Your task to perform on an android device: open a bookmark in the chrome app Image 0: 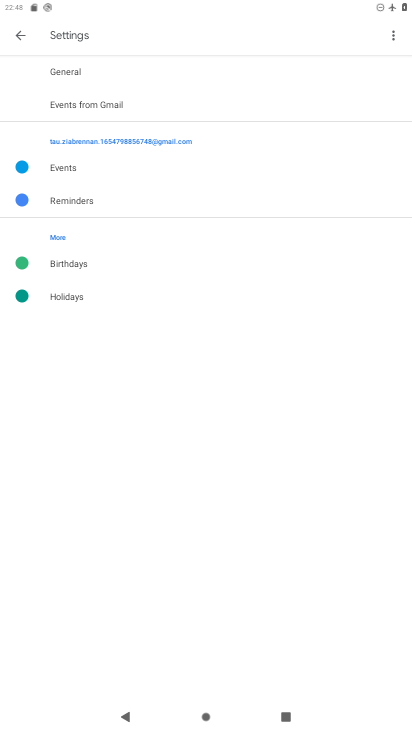
Step 0: press home button
Your task to perform on an android device: open a bookmark in the chrome app Image 1: 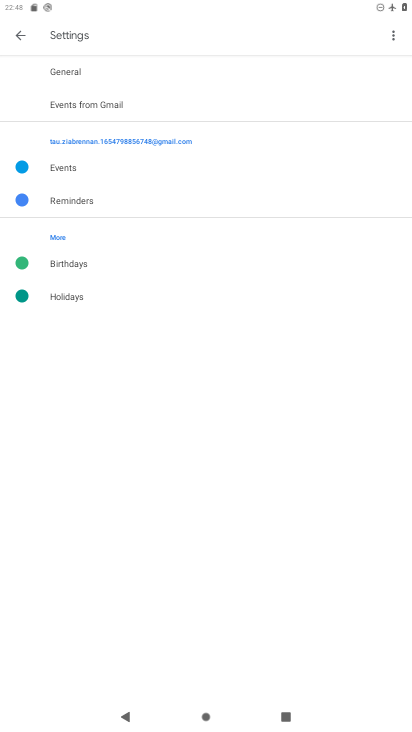
Step 1: press home button
Your task to perform on an android device: open a bookmark in the chrome app Image 2: 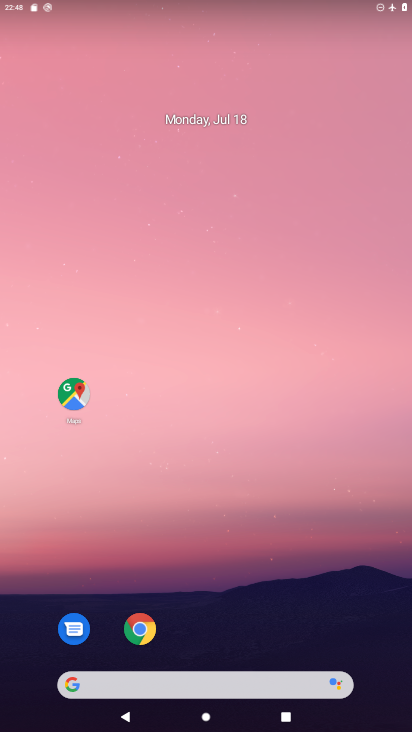
Step 2: drag from (281, 622) to (238, 78)
Your task to perform on an android device: open a bookmark in the chrome app Image 3: 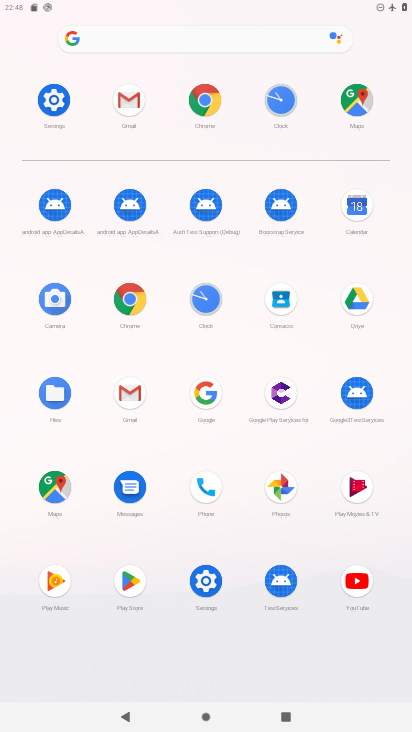
Step 3: click (205, 95)
Your task to perform on an android device: open a bookmark in the chrome app Image 4: 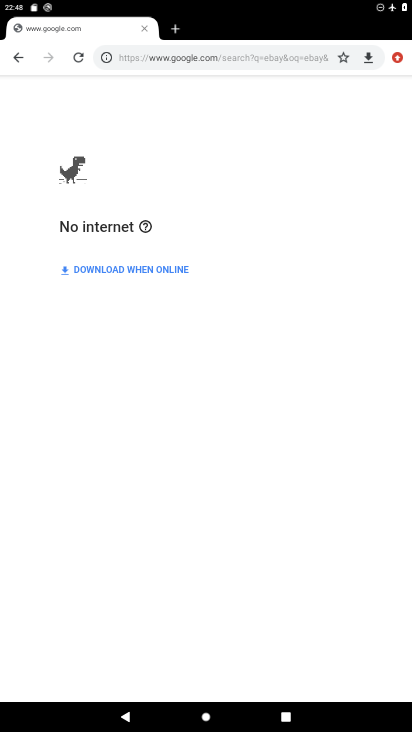
Step 4: drag from (405, 49) to (285, 154)
Your task to perform on an android device: open a bookmark in the chrome app Image 5: 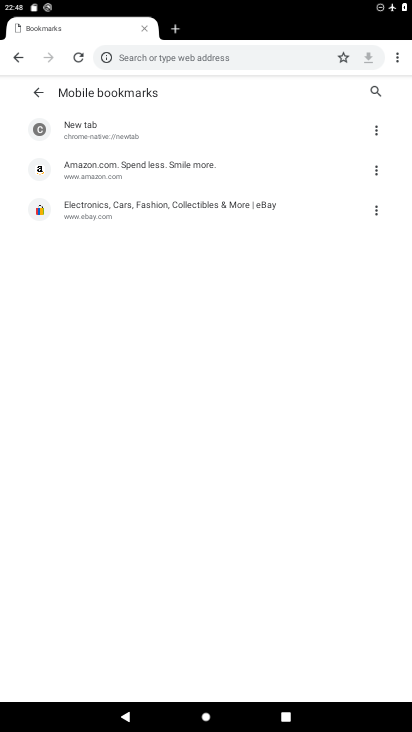
Step 5: click (101, 127)
Your task to perform on an android device: open a bookmark in the chrome app Image 6: 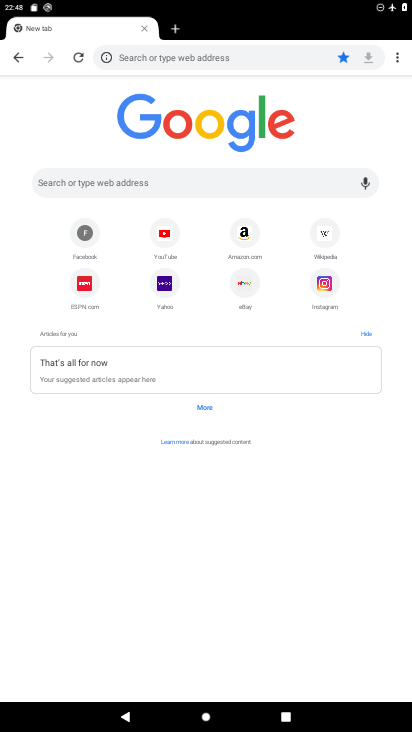
Step 6: task complete